Your task to perform on an android device: turn on the 12-hour format for clock Image 0: 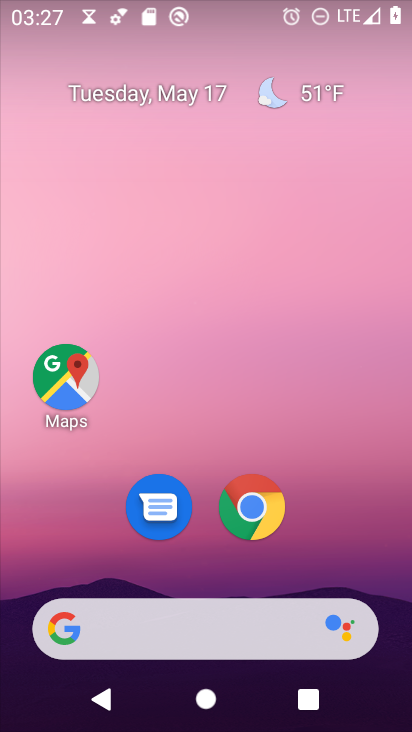
Step 0: drag from (315, 579) to (279, 129)
Your task to perform on an android device: turn on the 12-hour format for clock Image 1: 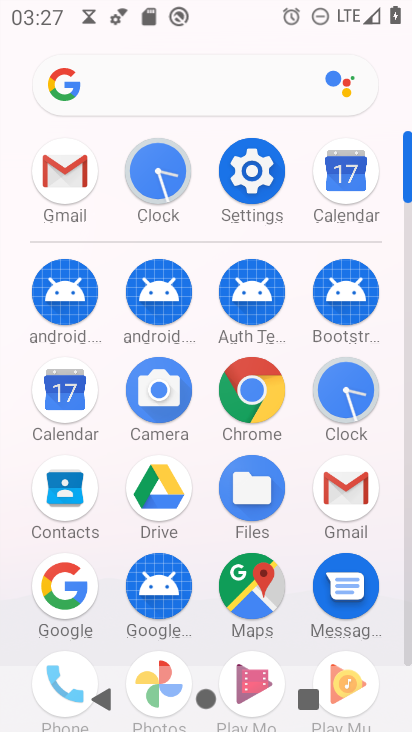
Step 1: click (137, 171)
Your task to perform on an android device: turn on the 12-hour format for clock Image 2: 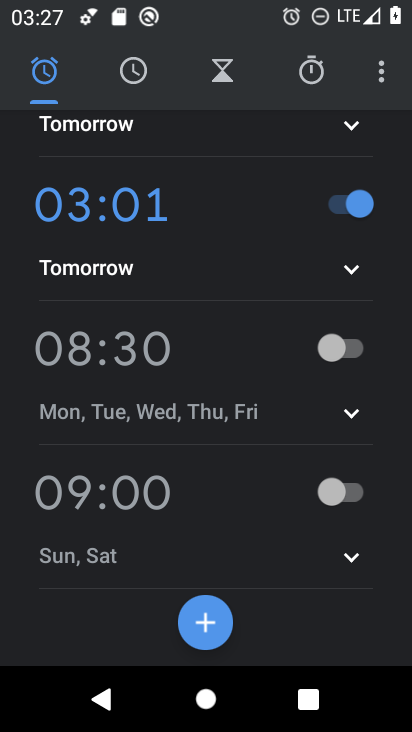
Step 2: click (372, 72)
Your task to perform on an android device: turn on the 12-hour format for clock Image 3: 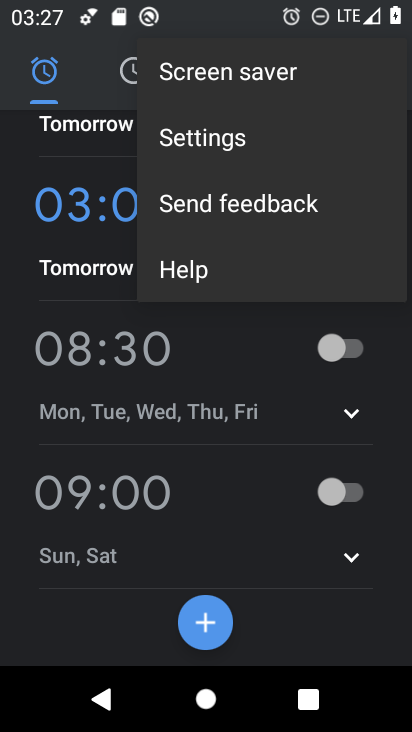
Step 3: click (259, 139)
Your task to perform on an android device: turn on the 12-hour format for clock Image 4: 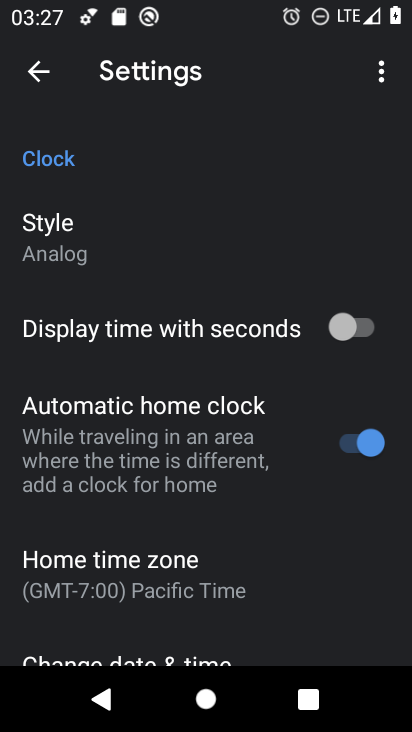
Step 4: drag from (199, 539) to (207, 268)
Your task to perform on an android device: turn on the 12-hour format for clock Image 5: 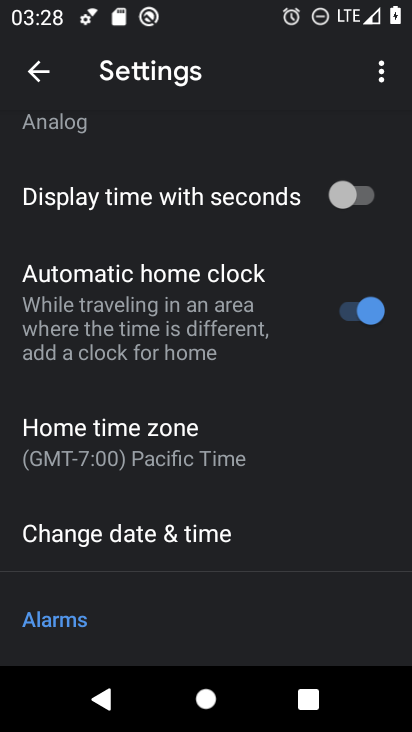
Step 5: drag from (206, 565) to (193, 362)
Your task to perform on an android device: turn on the 12-hour format for clock Image 6: 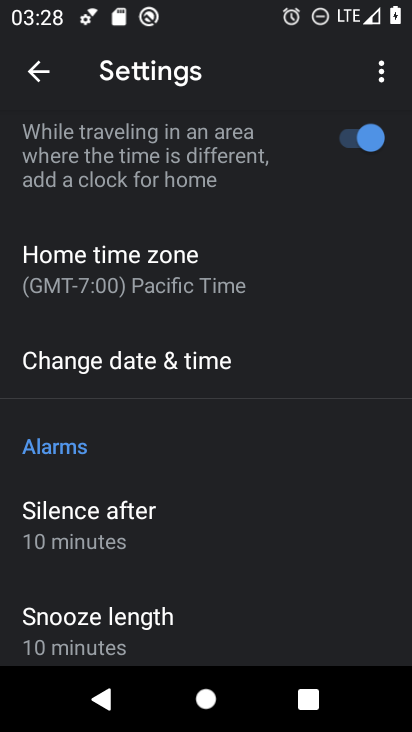
Step 6: drag from (182, 618) to (205, 342)
Your task to perform on an android device: turn on the 12-hour format for clock Image 7: 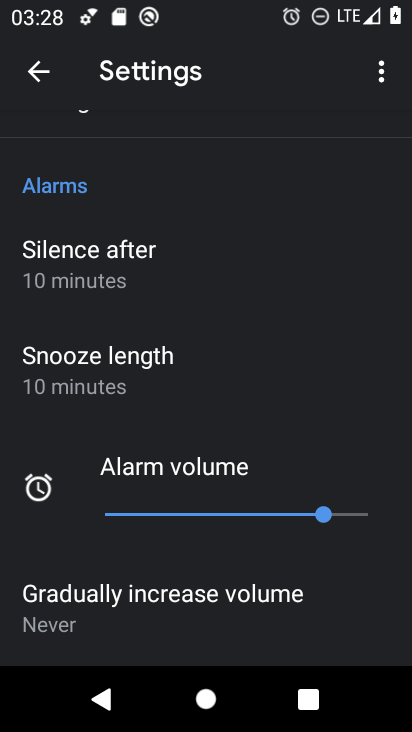
Step 7: click (261, 122)
Your task to perform on an android device: turn on the 12-hour format for clock Image 8: 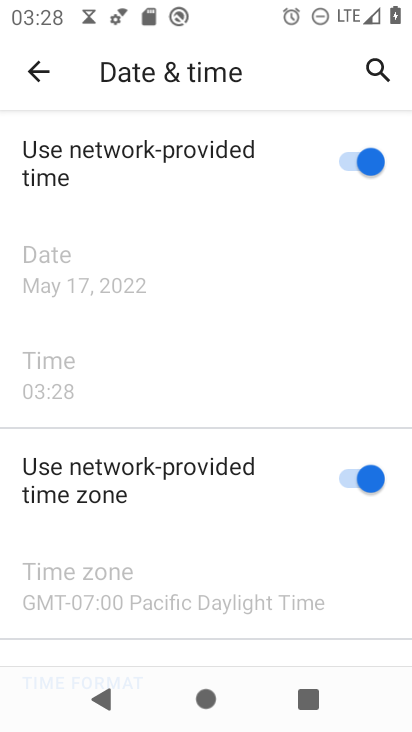
Step 8: drag from (162, 564) to (160, 214)
Your task to perform on an android device: turn on the 12-hour format for clock Image 9: 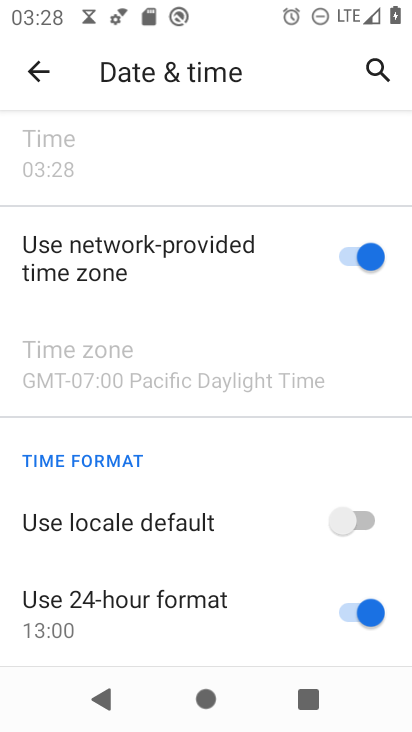
Step 9: click (343, 526)
Your task to perform on an android device: turn on the 12-hour format for clock Image 10: 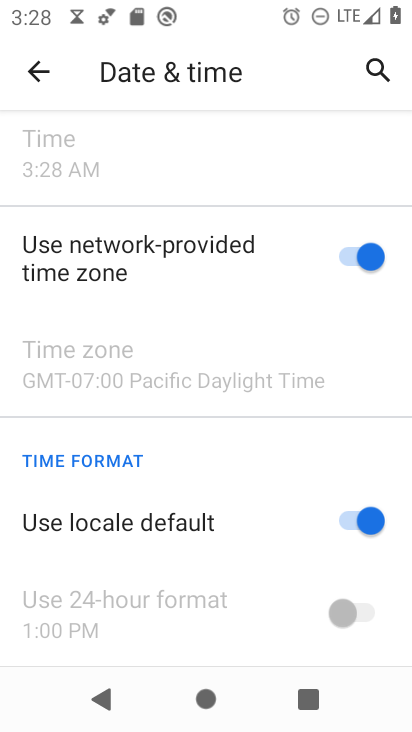
Step 10: task complete